Your task to perform on an android device: open wifi settings Image 0: 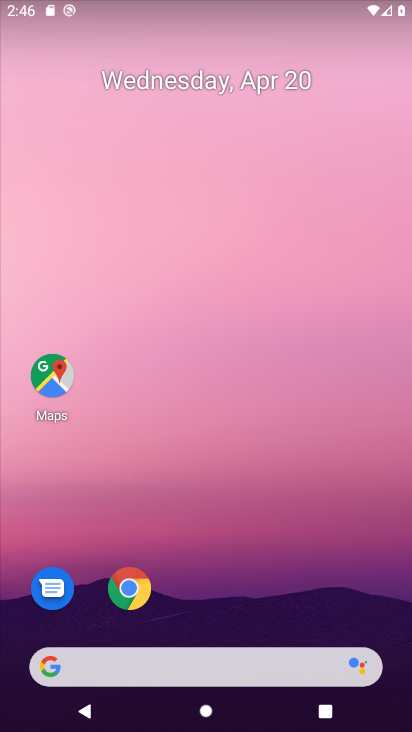
Step 0: drag from (284, 581) to (296, 52)
Your task to perform on an android device: open wifi settings Image 1: 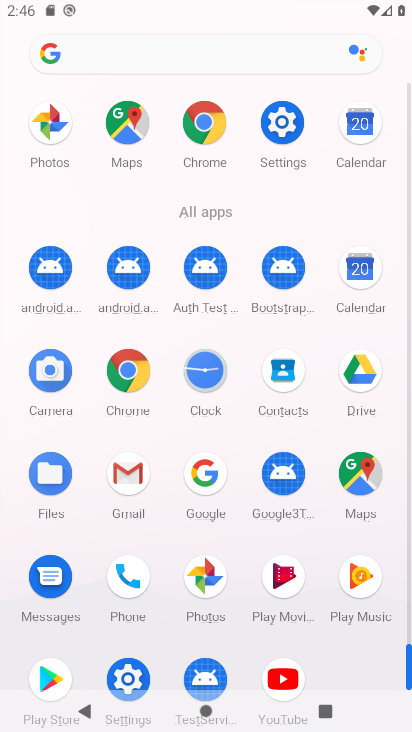
Step 1: click (272, 115)
Your task to perform on an android device: open wifi settings Image 2: 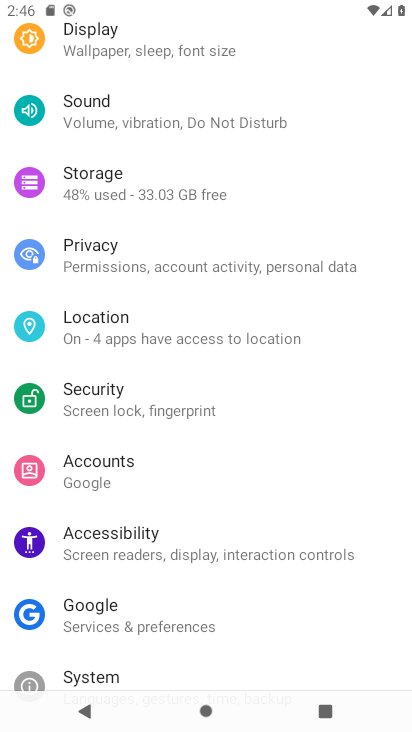
Step 2: drag from (349, 470) to (355, 297)
Your task to perform on an android device: open wifi settings Image 3: 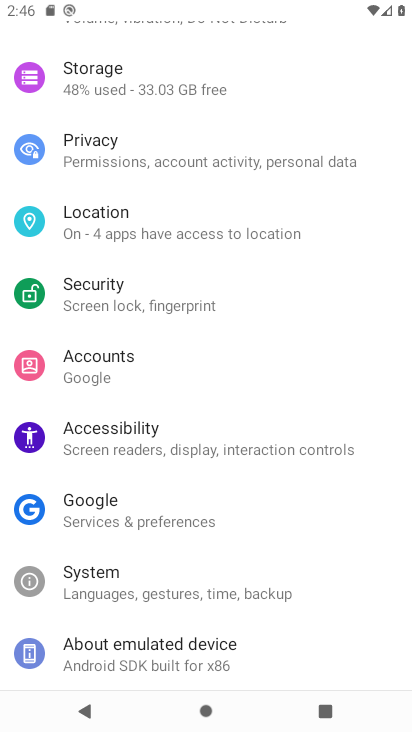
Step 3: drag from (326, 561) to (346, 360)
Your task to perform on an android device: open wifi settings Image 4: 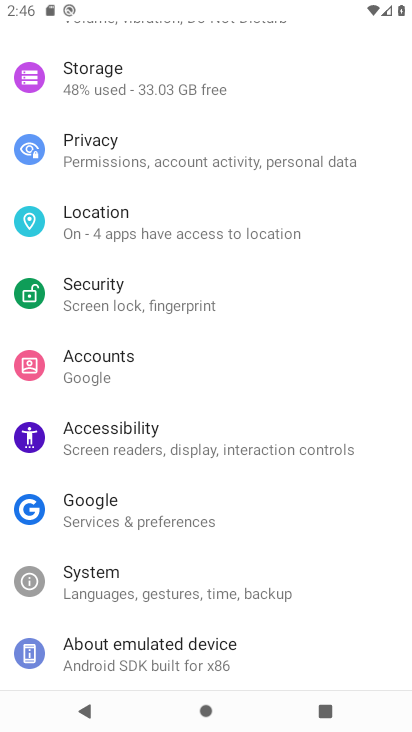
Step 4: drag from (371, 267) to (367, 436)
Your task to perform on an android device: open wifi settings Image 5: 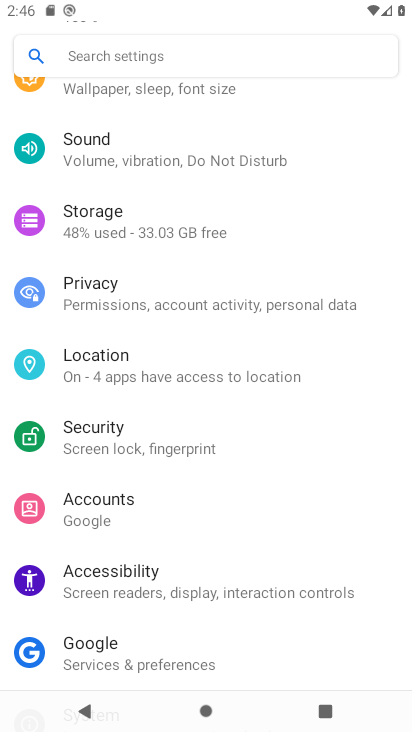
Step 5: drag from (378, 259) to (370, 436)
Your task to perform on an android device: open wifi settings Image 6: 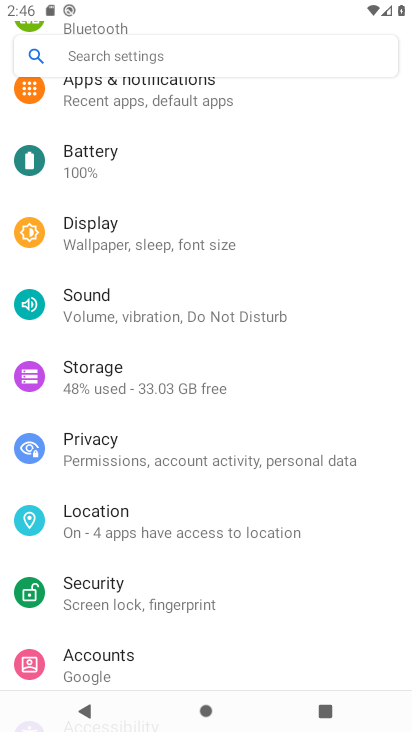
Step 6: drag from (344, 224) to (348, 442)
Your task to perform on an android device: open wifi settings Image 7: 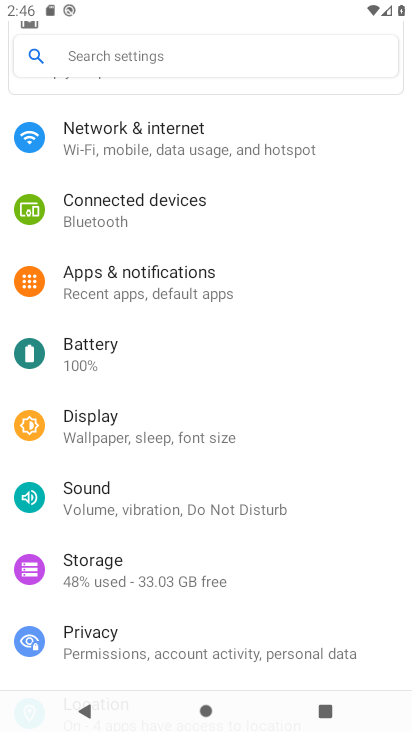
Step 7: drag from (347, 176) to (350, 356)
Your task to perform on an android device: open wifi settings Image 8: 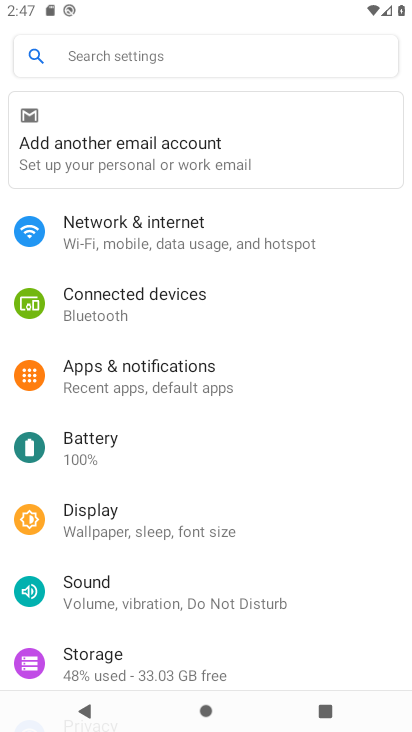
Step 8: click (187, 231)
Your task to perform on an android device: open wifi settings Image 9: 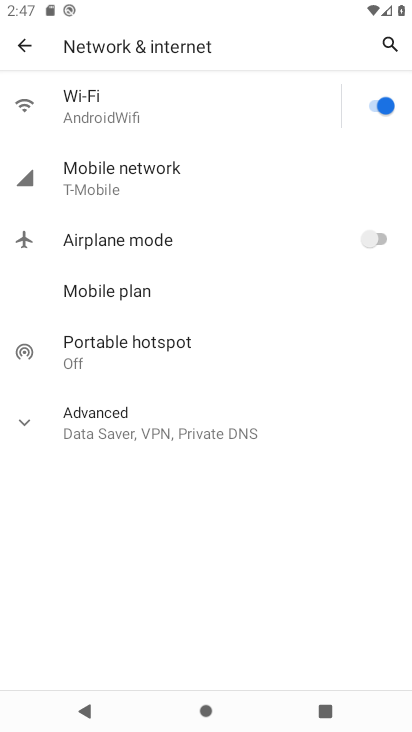
Step 9: click (135, 113)
Your task to perform on an android device: open wifi settings Image 10: 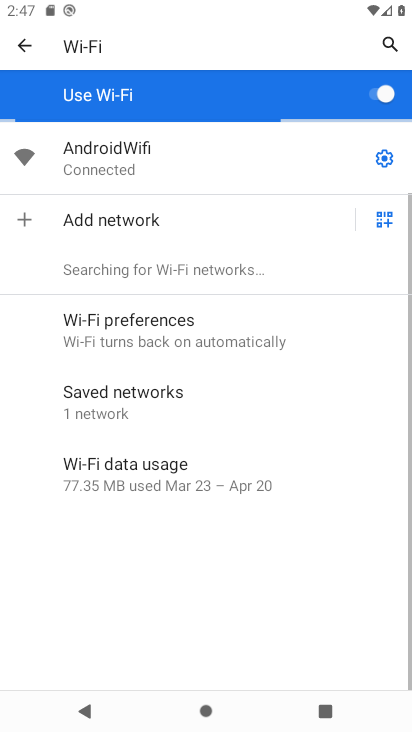
Step 10: task complete